Your task to perform on an android device: snooze an email in the gmail app Image 0: 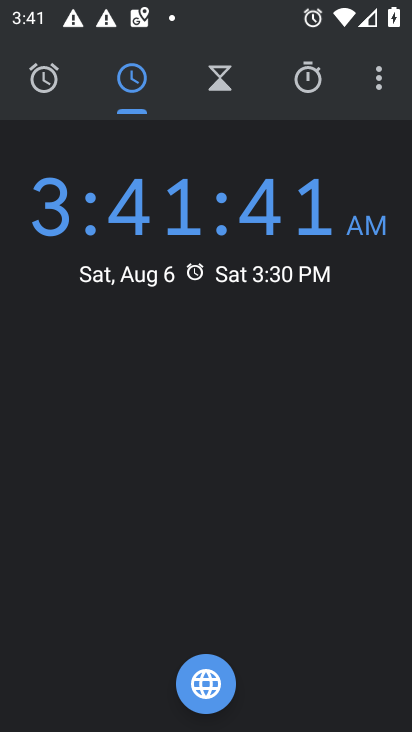
Step 0: press home button
Your task to perform on an android device: snooze an email in the gmail app Image 1: 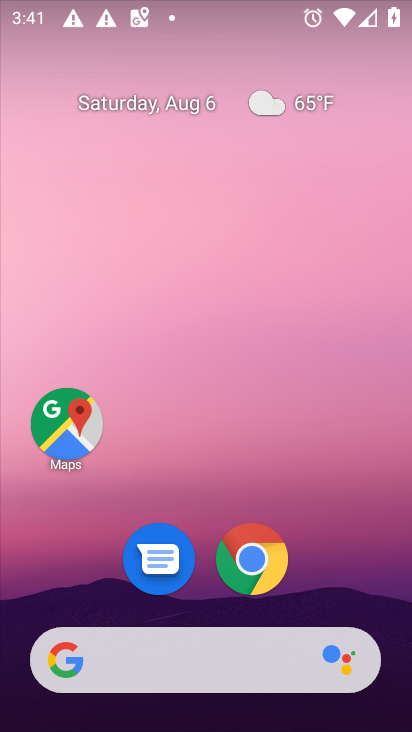
Step 1: drag from (321, 549) to (277, 33)
Your task to perform on an android device: snooze an email in the gmail app Image 2: 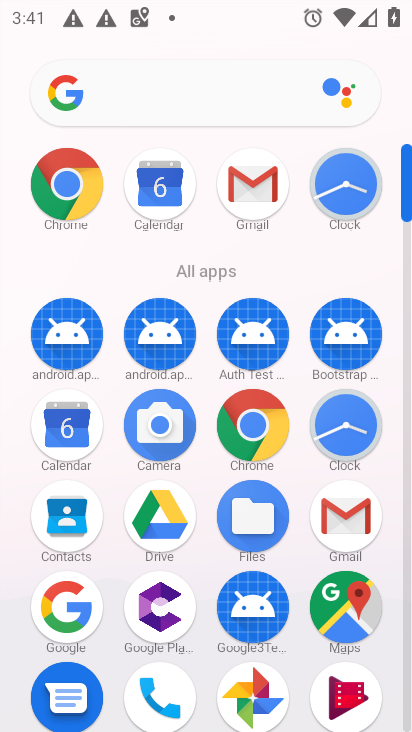
Step 2: click (259, 180)
Your task to perform on an android device: snooze an email in the gmail app Image 3: 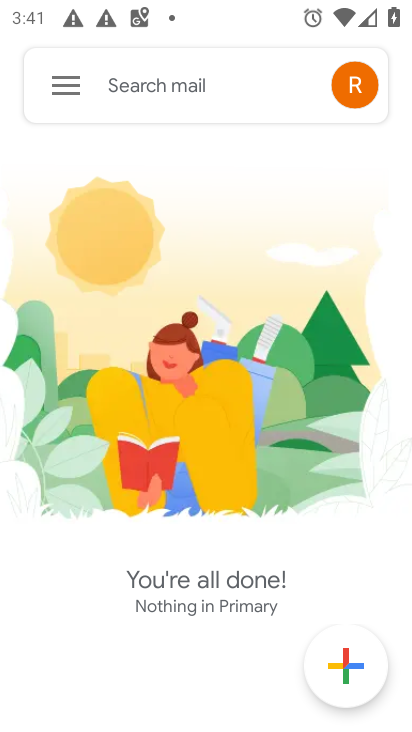
Step 3: click (61, 82)
Your task to perform on an android device: snooze an email in the gmail app Image 4: 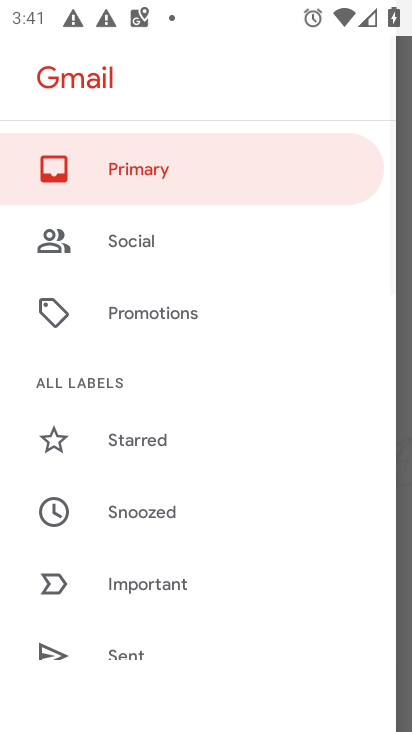
Step 4: drag from (155, 554) to (212, 81)
Your task to perform on an android device: snooze an email in the gmail app Image 5: 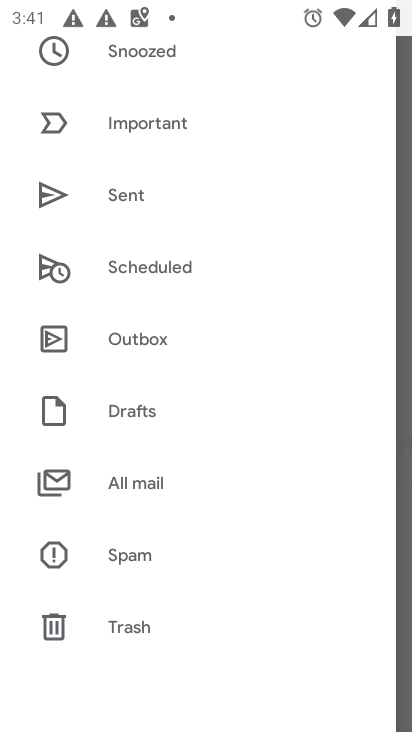
Step 5: click (150, 478)
Your task to perform on an android device: snooze an email in the gmail app Image 6: 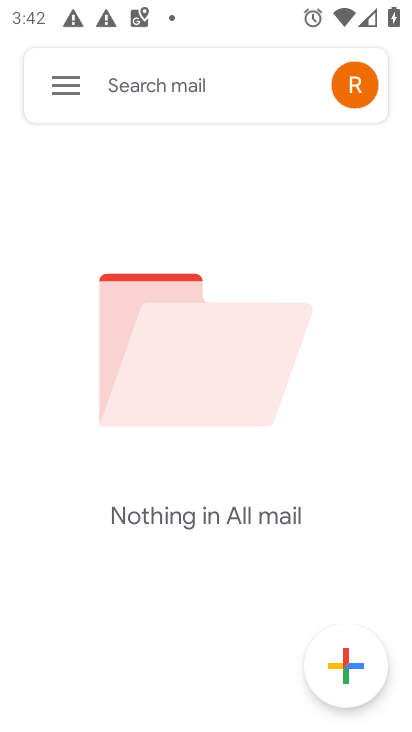
Step 6: task complete